Your task to perform on an android device: move a message to another label in the gmail app Image 0: 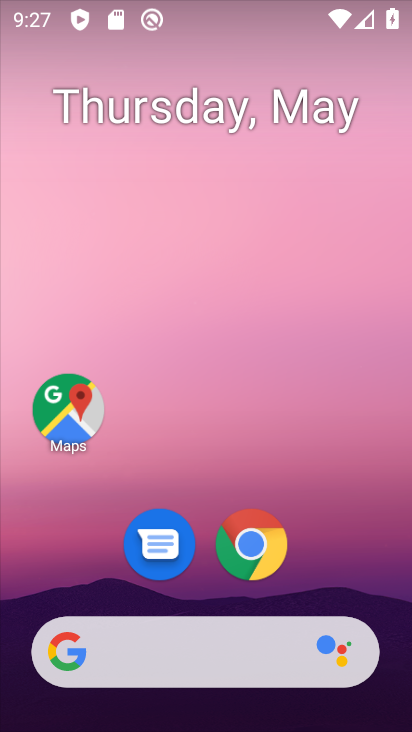
Step 0: drag from (105, 504) to (119, 231)
Your task to perform on an android device: move a message to another label in the gmail app Image 1: 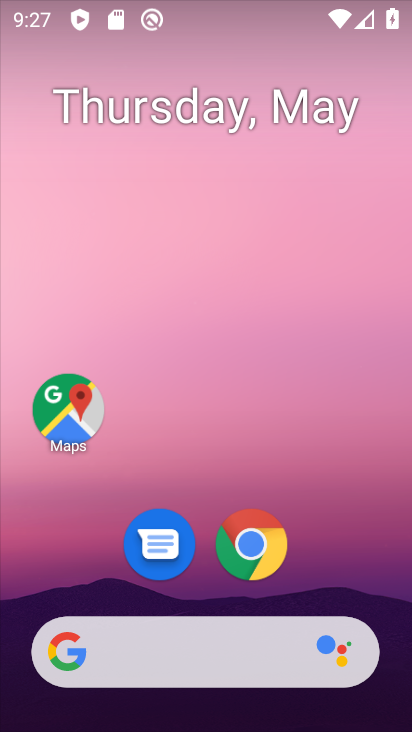
Step 1: drag from (84, 551) to (118, 199)
Your task to perform on an android device: move a message to another label in the gmail app Image 2: 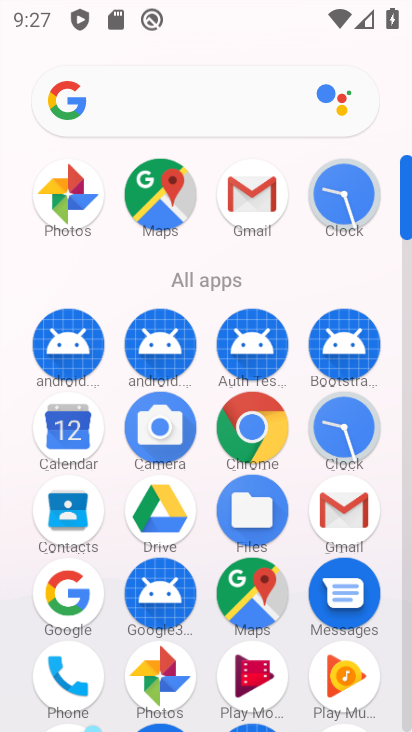
Step 2: click (257, 197)
Your task to perform on an android device: move a message to another label in the gmail app Image 3: 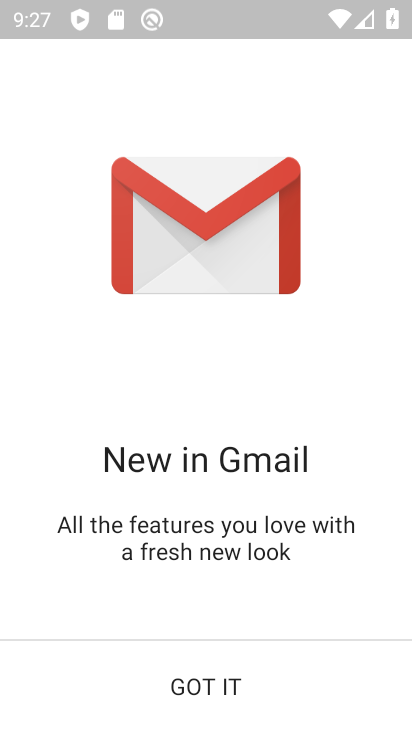
Step 3: click (239, 678)
Your task to perform on an android device: move a message to another label in the gmail app Image 4: 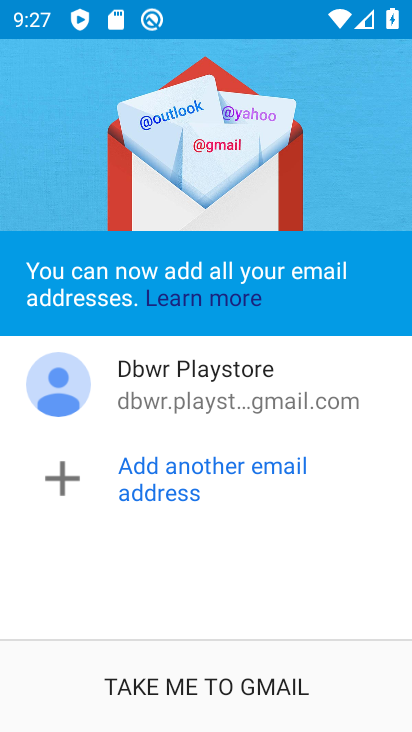
Step 4: click (227, 674)
Your task to perform on an android device: move a message to another label in the gmail app Image 5: 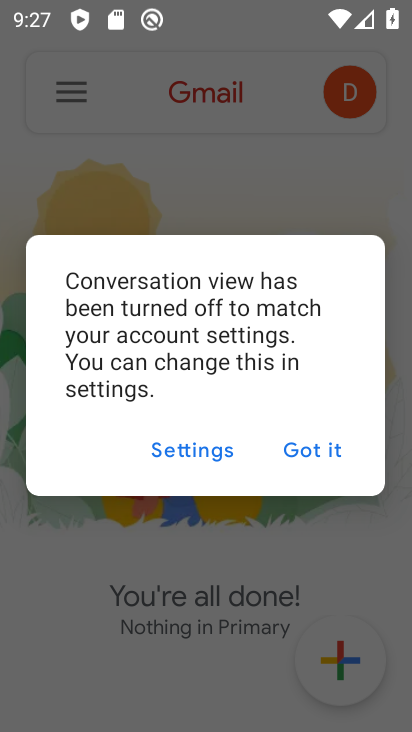
Step 5: click (296, 439)
Your task to perform on an android device: move a message to another label in the gmail app Image 6: 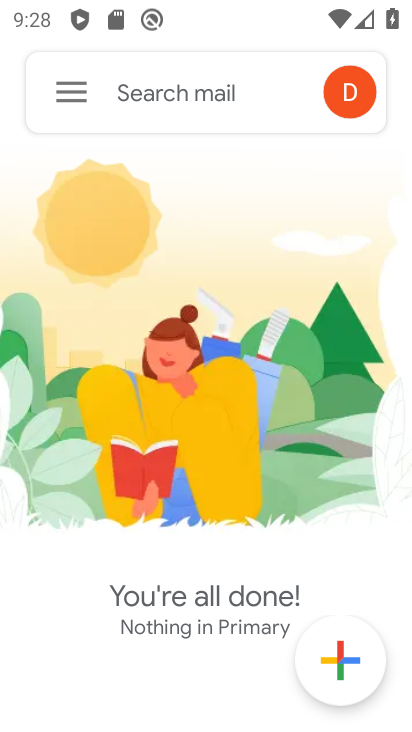
Step 6: click (93, 91)
Your task to perform on an android device: move a message to another label in the gmail app Image 7: 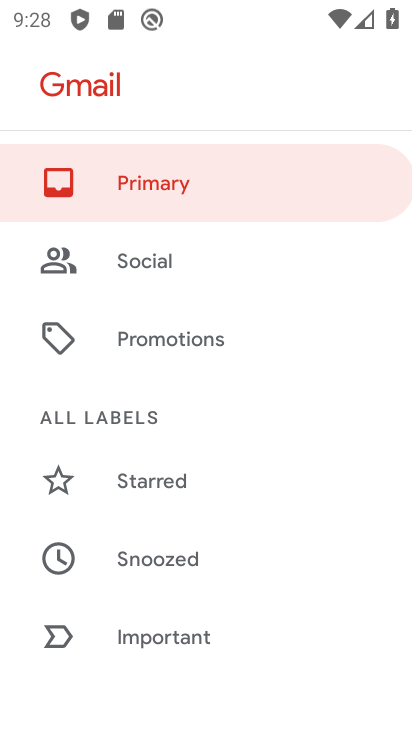
Step 7: drag from (228, 480) to (261, 190)
Your task to perform on an android device: move a message to another label in the gmail app Image 8: 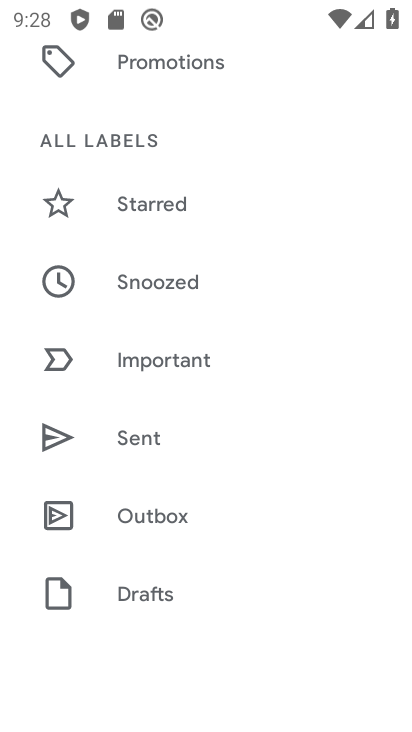
Step 8: drag from (133, 506) to (169, 239)
Your task to perform on an android device: move a message to another label in the gmail app Image 9: 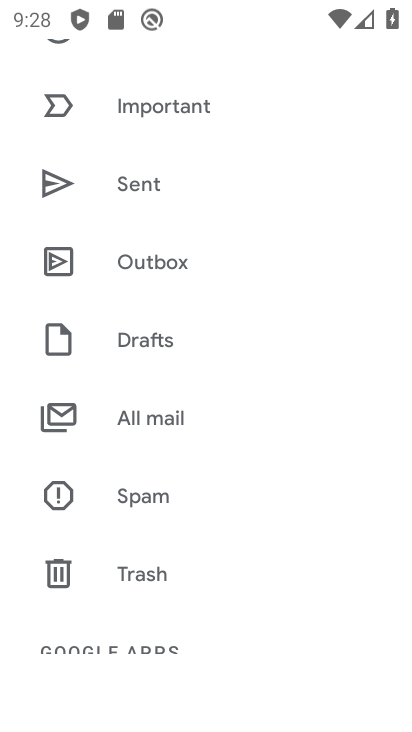
Step 9: click (144, 424)
Your task to perform on an android device: move a message to another label in the gmail app Image 10: 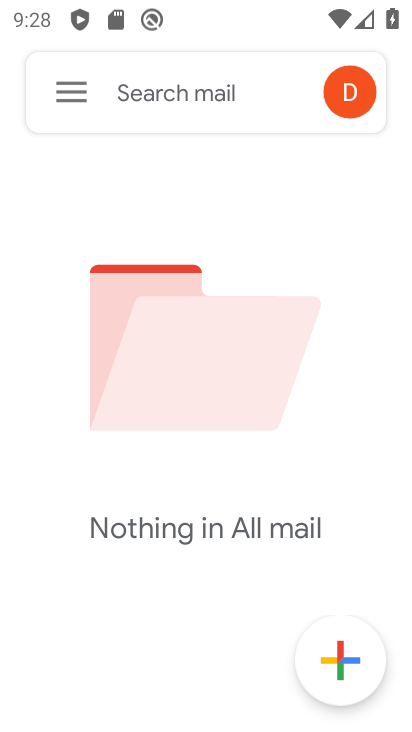
Step 10: task complete